Your task to perform on an android device: Add bose soundlink to the cart on bestbuy Image 0: 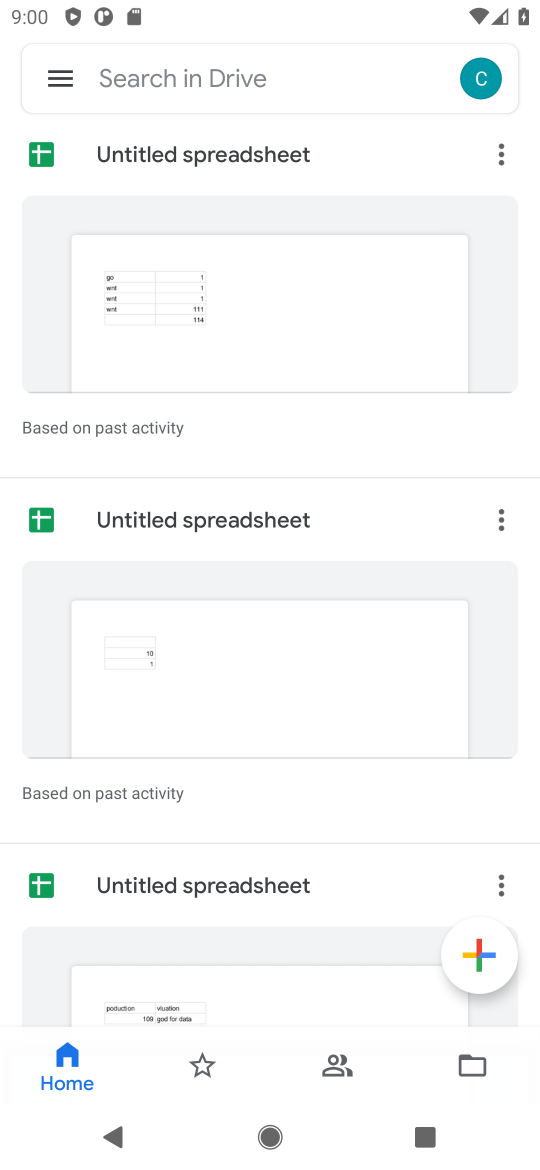
Step 0: press home button
Your task to perform on an android device: Add bose soundlink to the cart on bestbuy Image 1: 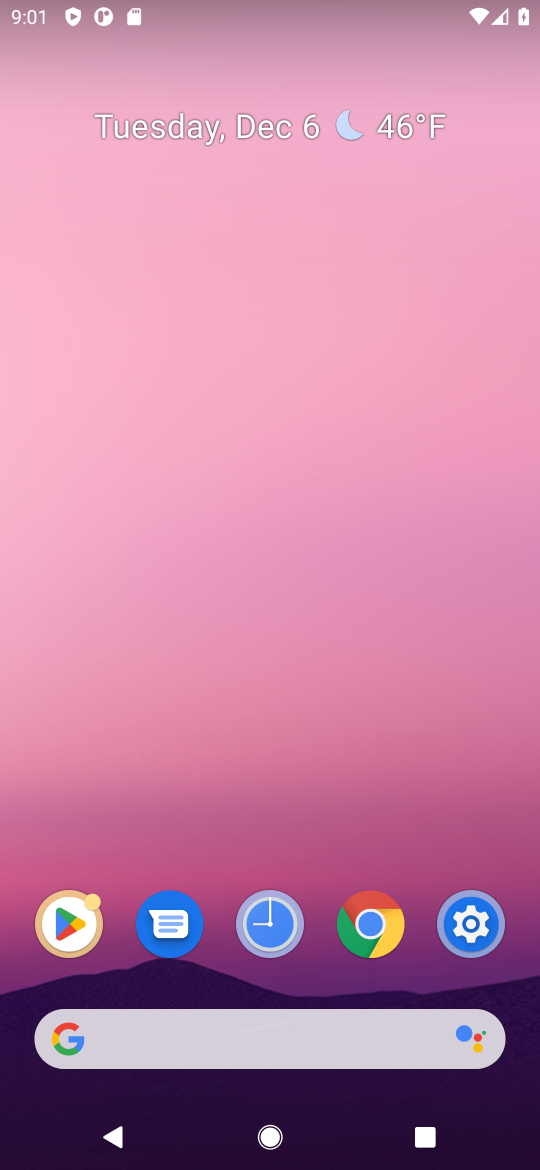
Step 1: click (256, 1051)
Your task to perform on an android device: Add bose soundlink to the cart on bestbuy Image 2: 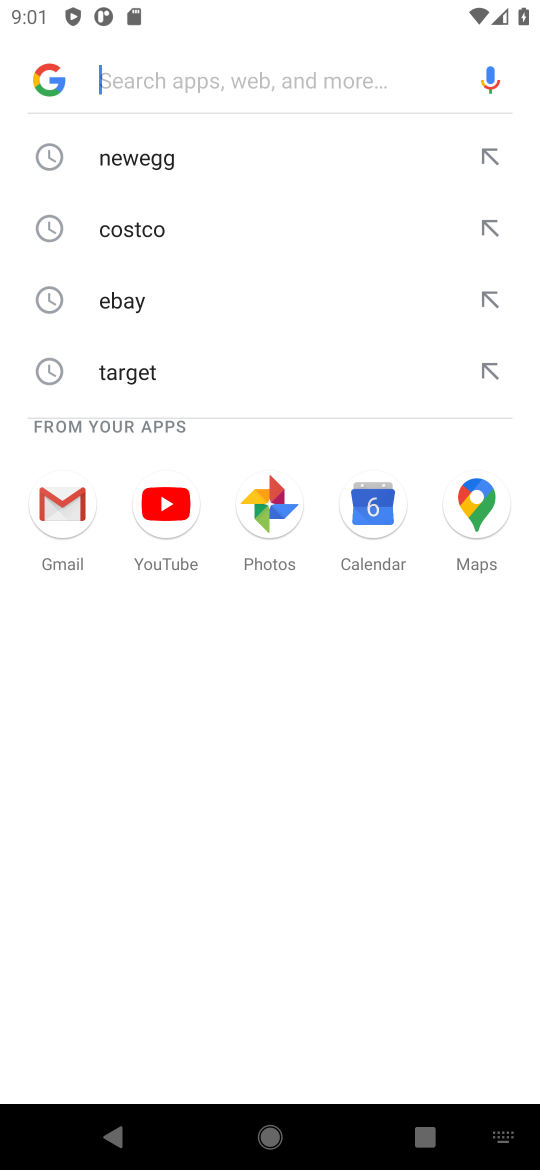
Step 2: type "bestbuy"
Your task to perform on an android device: Add bose soundlink to the cart on bestbuy Image 3: 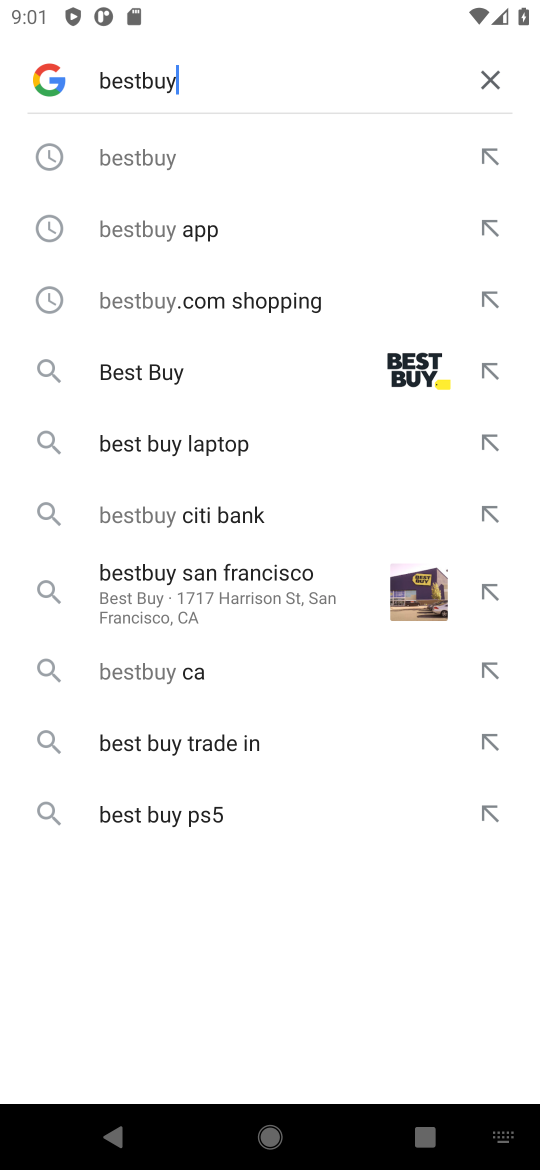
Step 3: click (210, 157)
Your task to perform on an android device: Add bose soundlink to the cart on bestbuy Image 4: 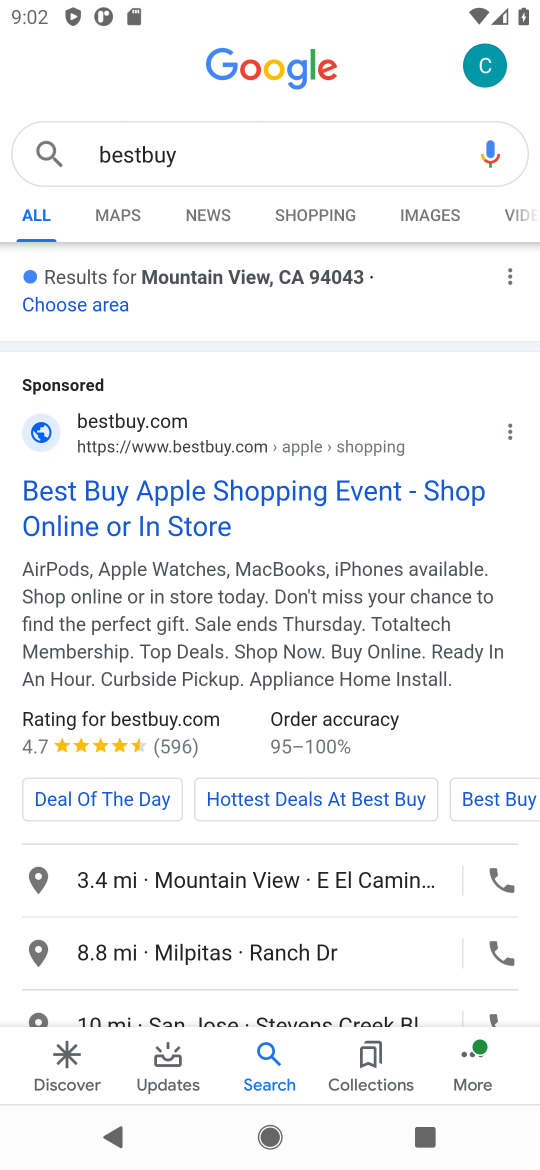
Step 4: click (318, 471)
Your task to perform on an android device: Add bose soundlink to the cart on bestbuy Image 5: 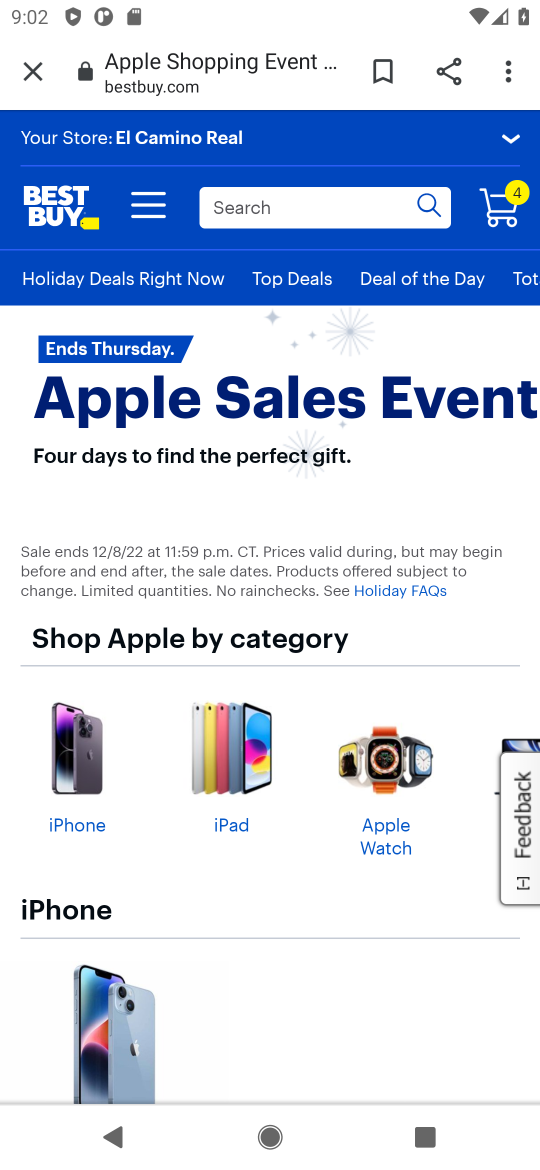
Step 5: click (259, 207)
Your task to perform on an android device: Add bose soundlink to the cart on bestbuy Image 6: 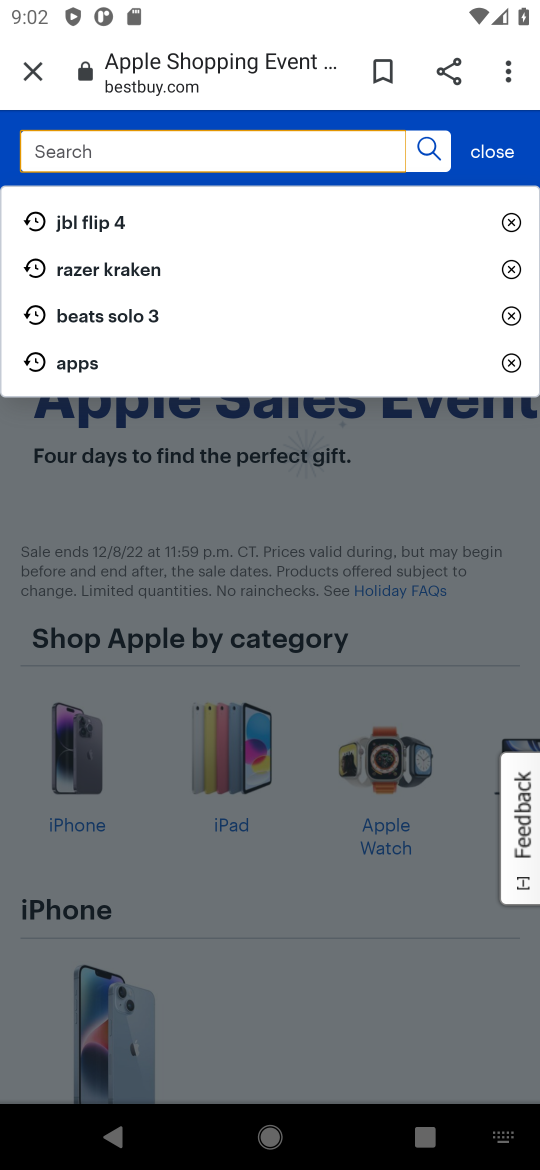
Step 6: type "boe soundlink"
Your task to perform on an android device: Add bose soundlink to the cart on bestbuy Image 7: 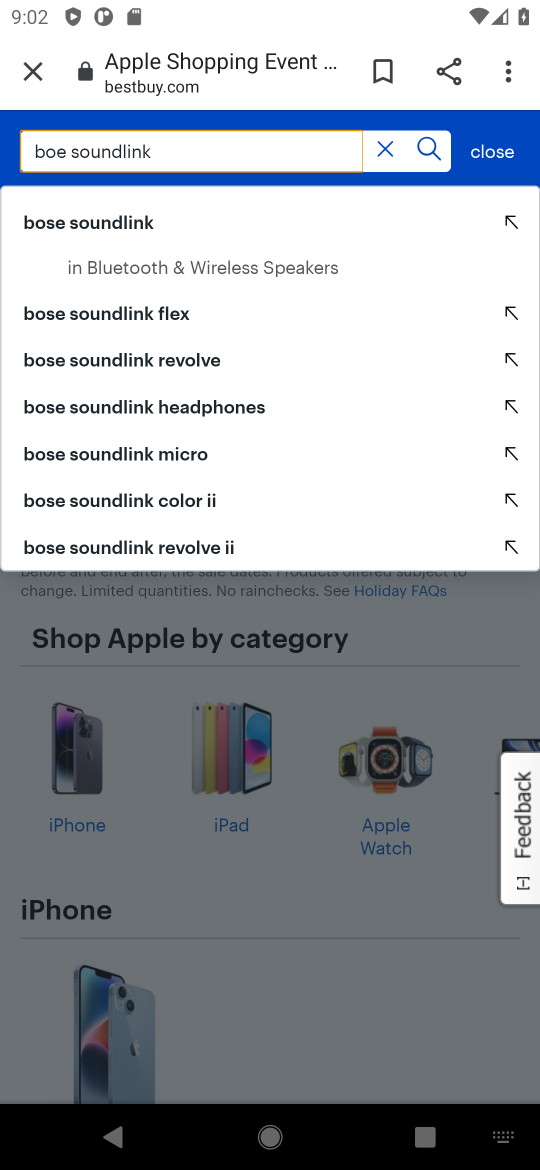
Step 7: click (87, 226)
Your task to perform on an android device: Add bose soundlink to the cart on bestbuy Image 8: 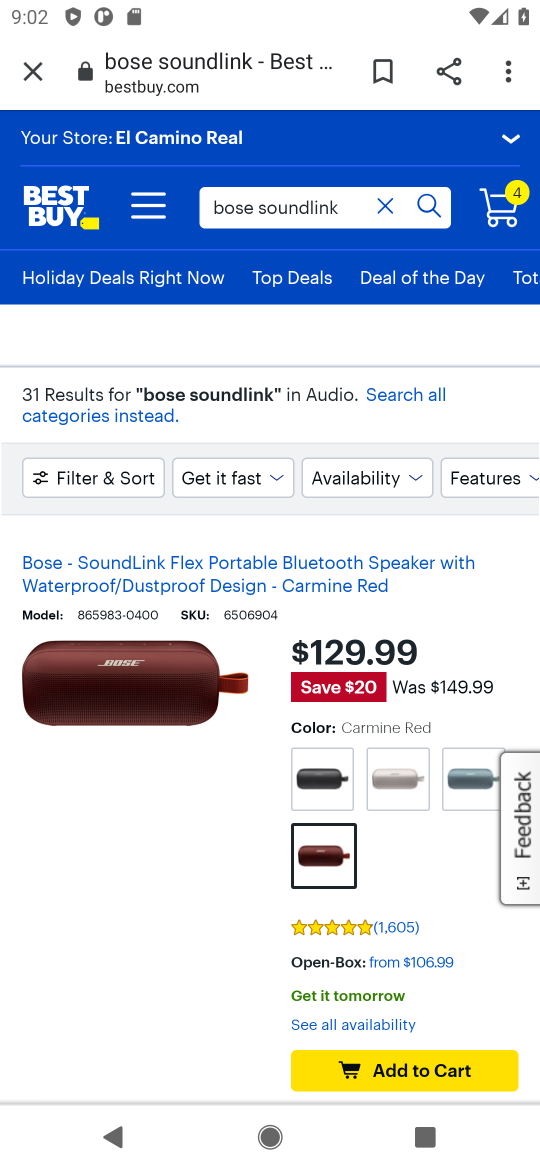
Step 8: click (390, 1078)
Your task to perform on an android device: Add bose soundlink to the cart on bestbuy Image 9: 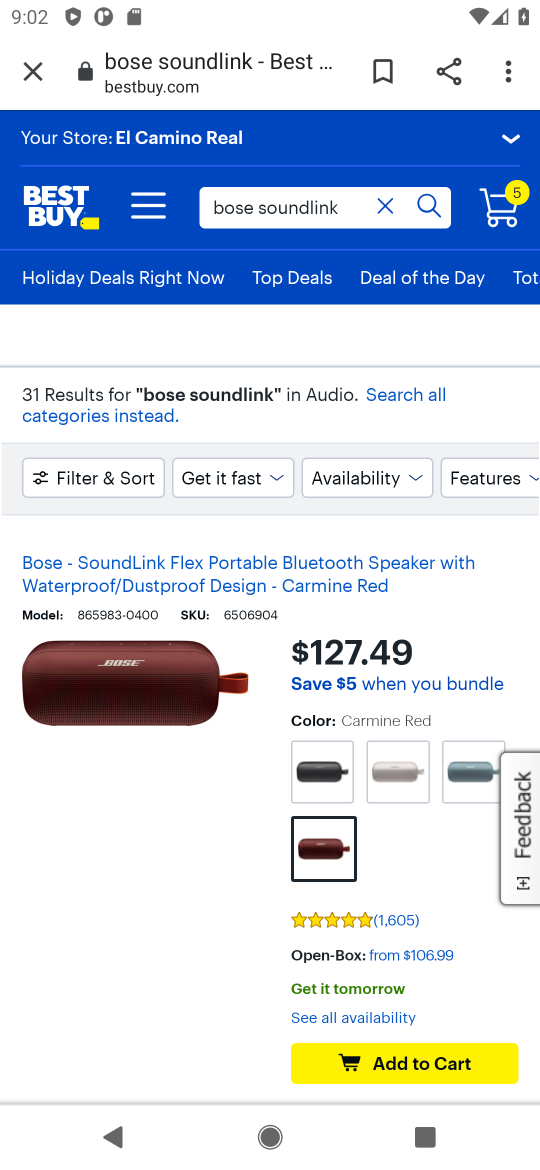
Step 9: task complete